Your task to perform on an android device: turn on showing notifications on the lock screen Image 0: 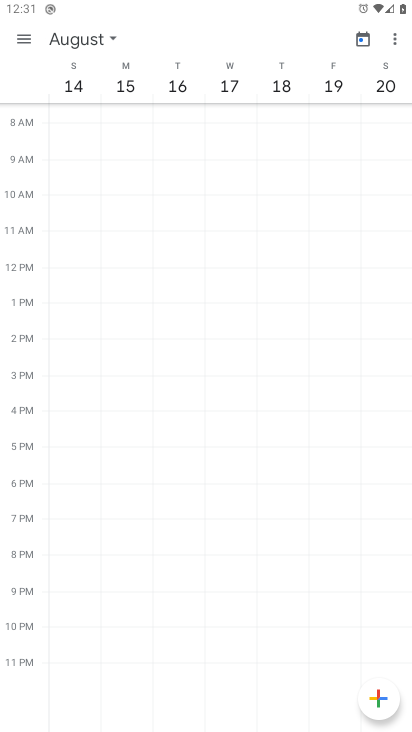
Step 0: press home button
Your task to perform on an android device: turn on showing notifications on the lock screen Image 1: 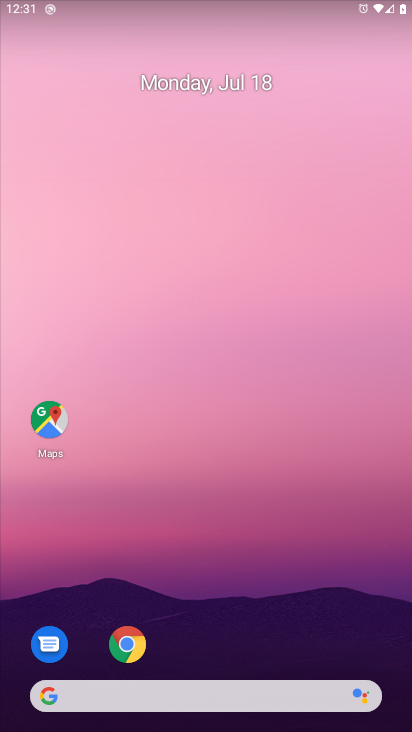
Step 1: drag from (261, 620) to (267, 105)
Your task to perform on an android device: turn on showing notifications on the lock screen Image 2: 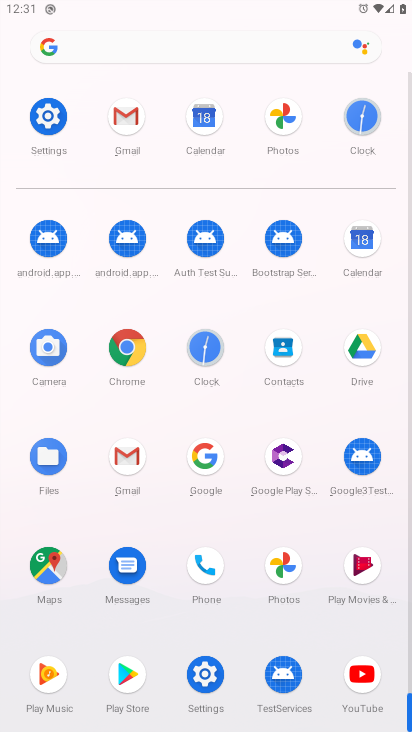
Step 2: click (49, 117)
Your task to perform on an android device: turn on showing notifications on the lock screen Image 3: 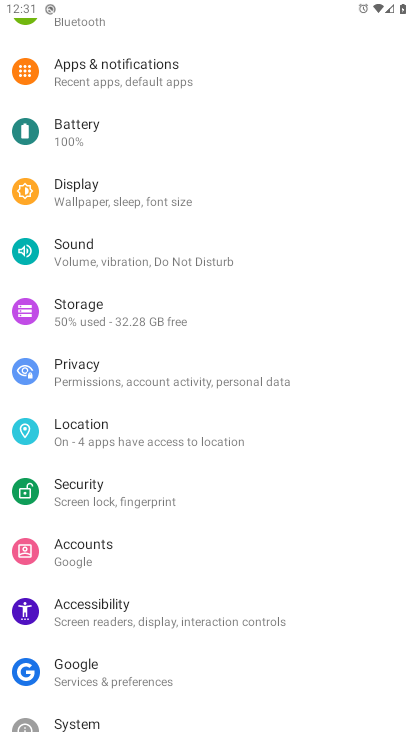
Step 3: click (154, 67)
Your task to perform on an android device: turn on showing notifications on the lock screen Image 4: 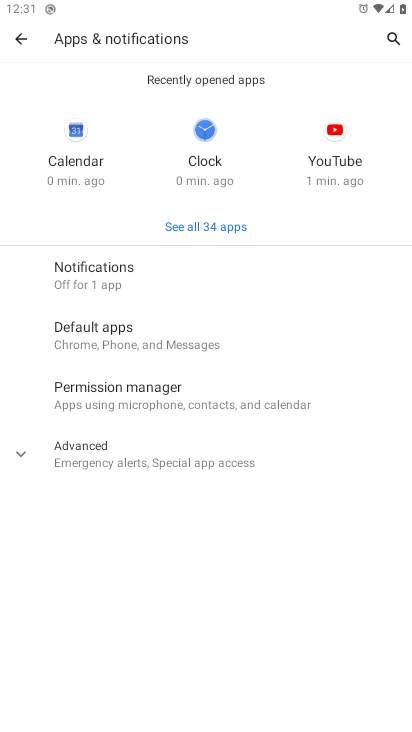
Step 4: click (91, 264)
Your task to perform on an android device: turn on showing notifications on the lock screen Image 5: 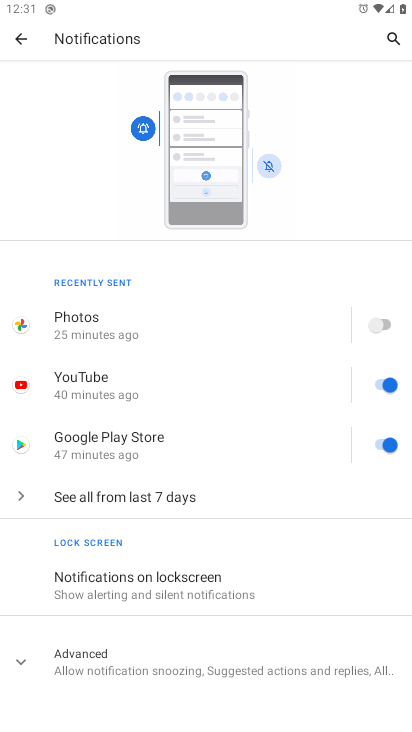
Step 5: click (175, 583)
Your task to perform on an android device: turn on showing notifications on the lock screen Image 6: 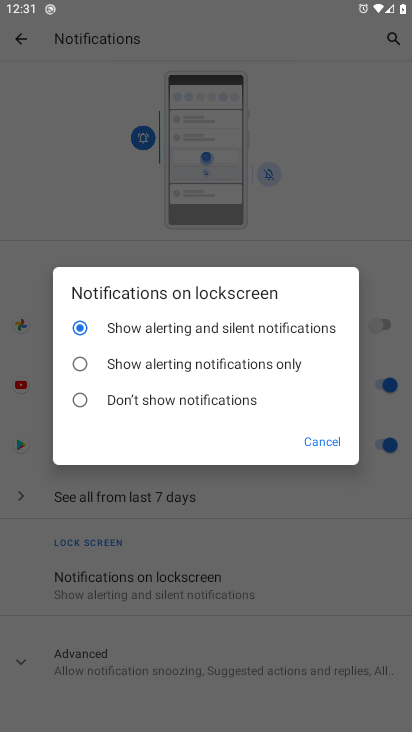
Step 6: task complete